Your task to perform on an android device: Search for a new nail polish Image 0: 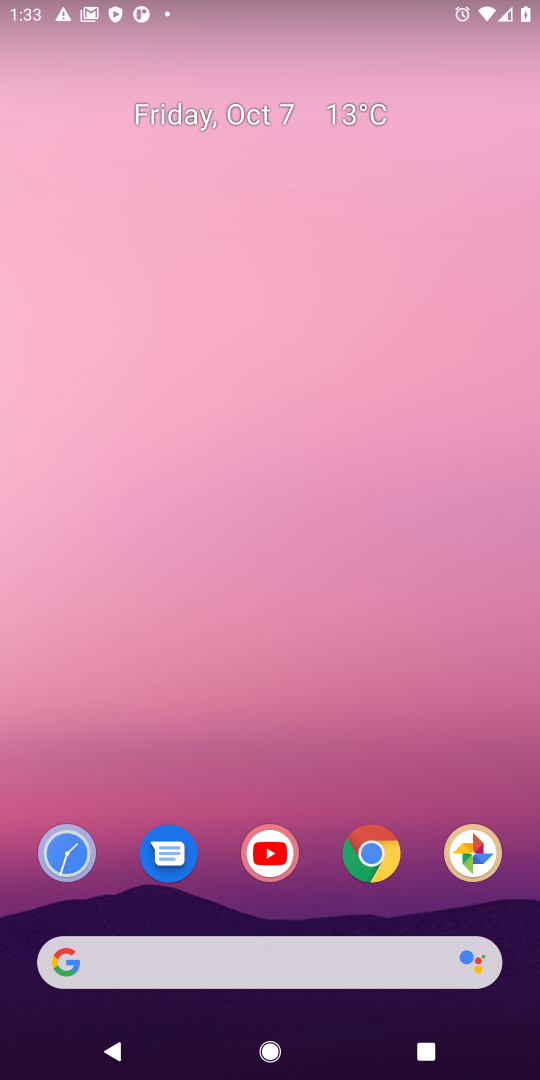
Step 0: click (238, 955)
Your task to perform on an android device: Search for a new nail polish Image 1: 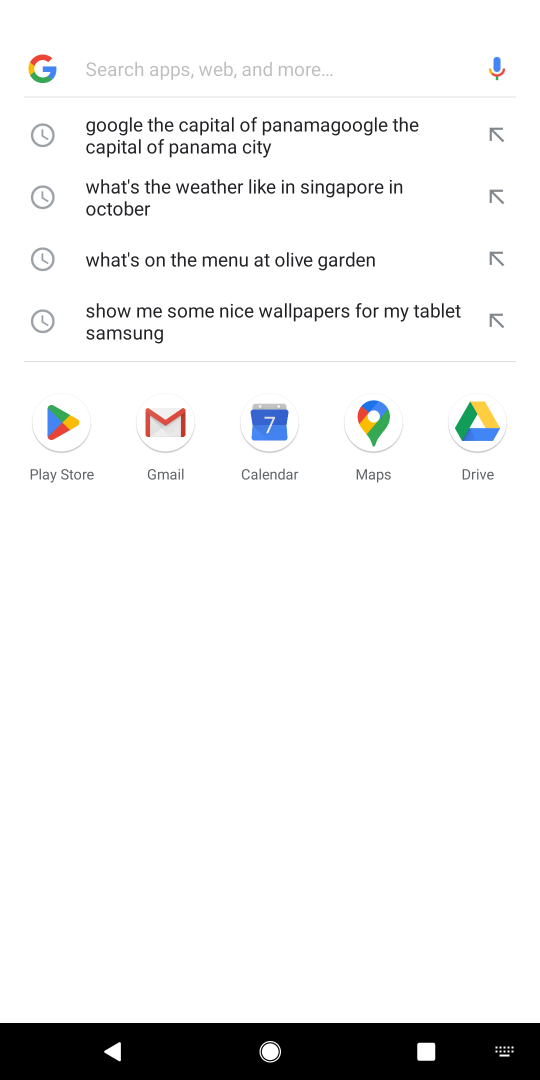
Step 1: type "Search for a new nail polish"
Your task to perform on an android device: Search for a new nail polish Image 2: 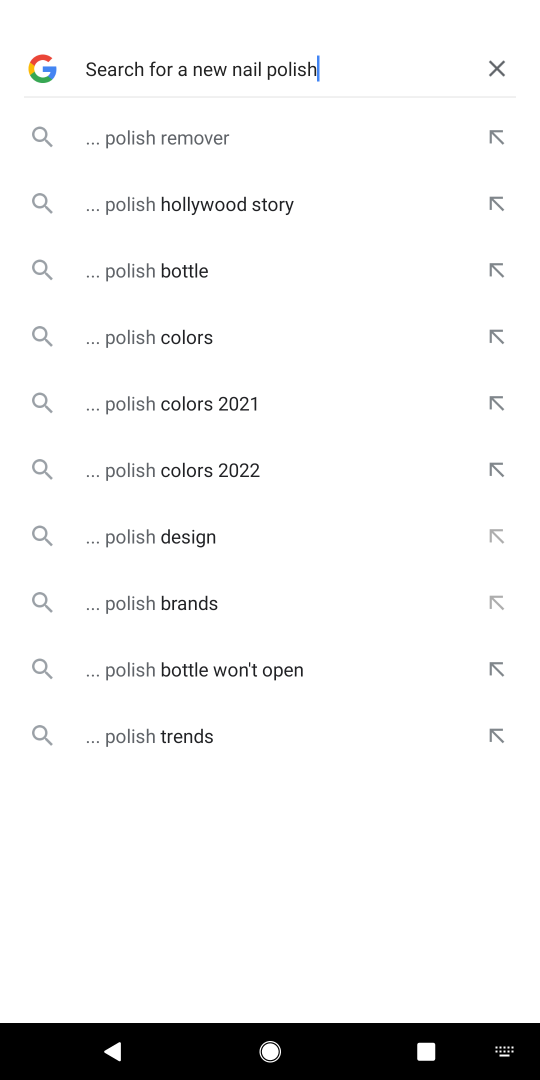
Step 2: type "Search for a new nail polish"
Your task to perform on an android device: Search for a new nail polish Image 3: 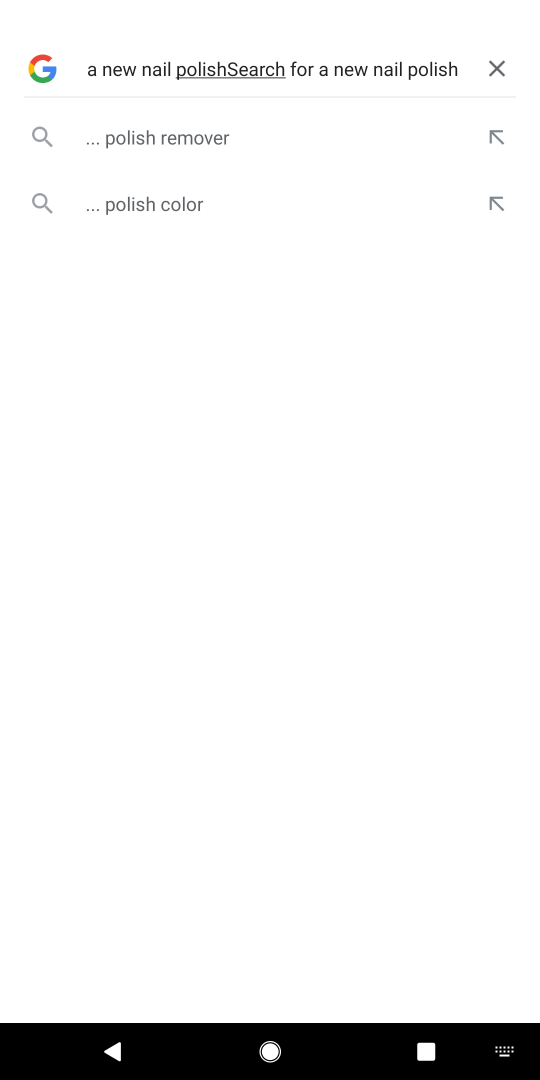
Step 3: task complete